Your task to perform on an android device: View the shopping cart on costco.com. Add lenovo thinkpad to the cart on costco.com, then select checkout. Image 0: 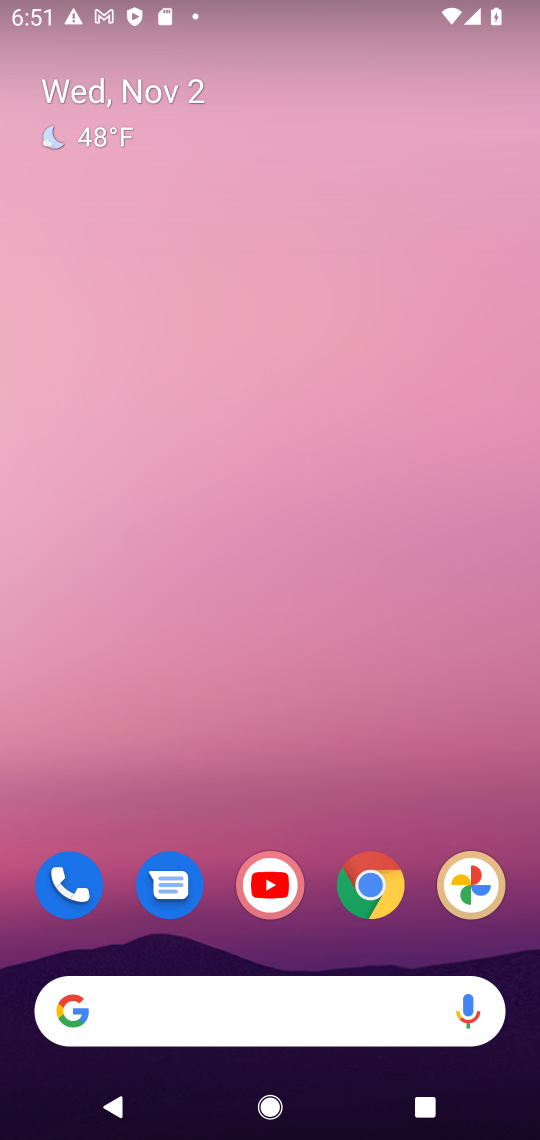
Step 0: click (366, 885)
Your task to perform on an android device: View the shopping cart on costco.com. Add lenovo thinkpad to the cart on costco.com, then select checkout. Image 1: 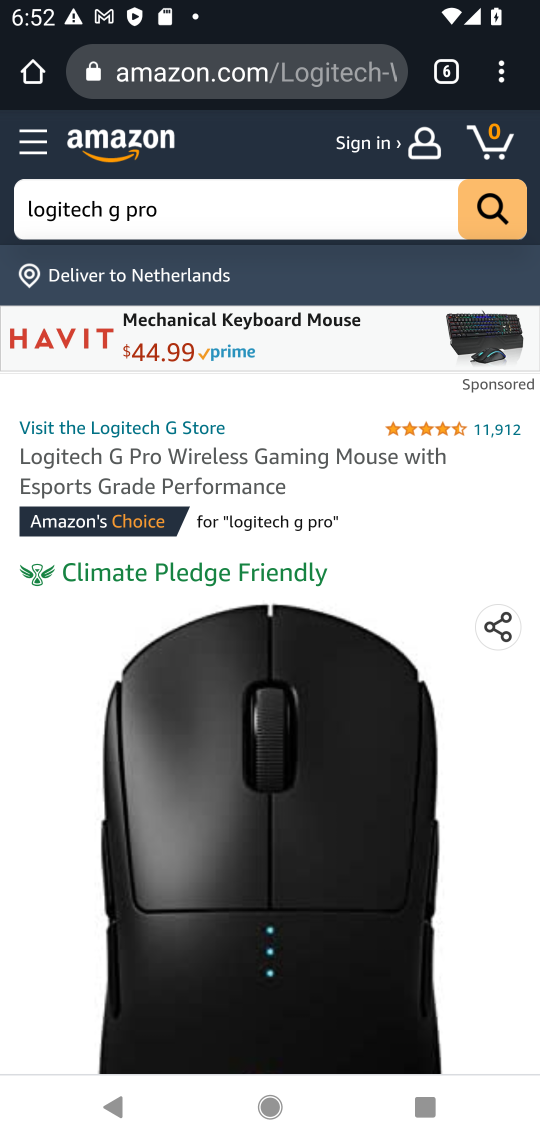
Step 1: click (504, 85)
Your task to perform on an android device: View the shopping cart on costco.com. Add lenovo thinkpad to the cart on costco.com, then select checkout. Image 2: 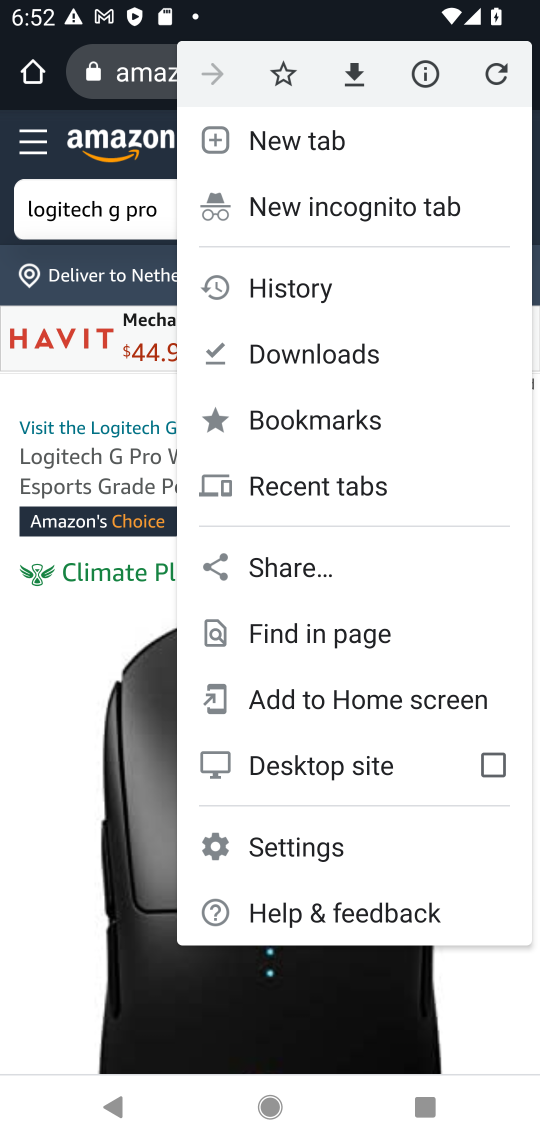
Step 2: click (346, 151)
Your task to perform on an android device: View the shopping cart on costco.com. Add lenovo thinkpad to the cart on costco.com, then select checkout. Image 3: 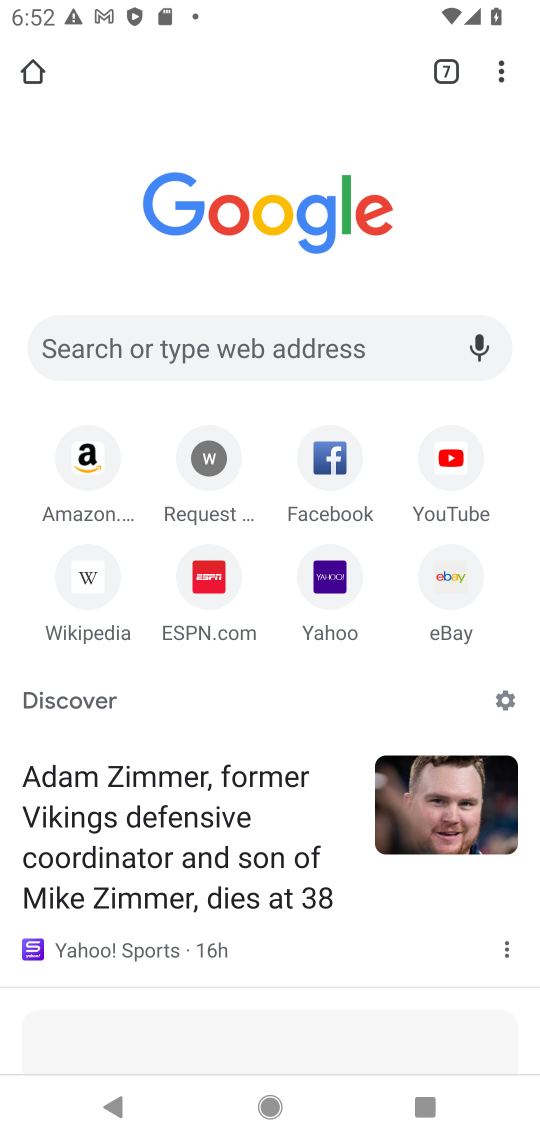
Step 3: click (205, 349)
Your task to perform on an android device: View the shopping cart on costco.com. Add lenovo thinkpad to the cart on costco.com, then select checkout. Image 4: 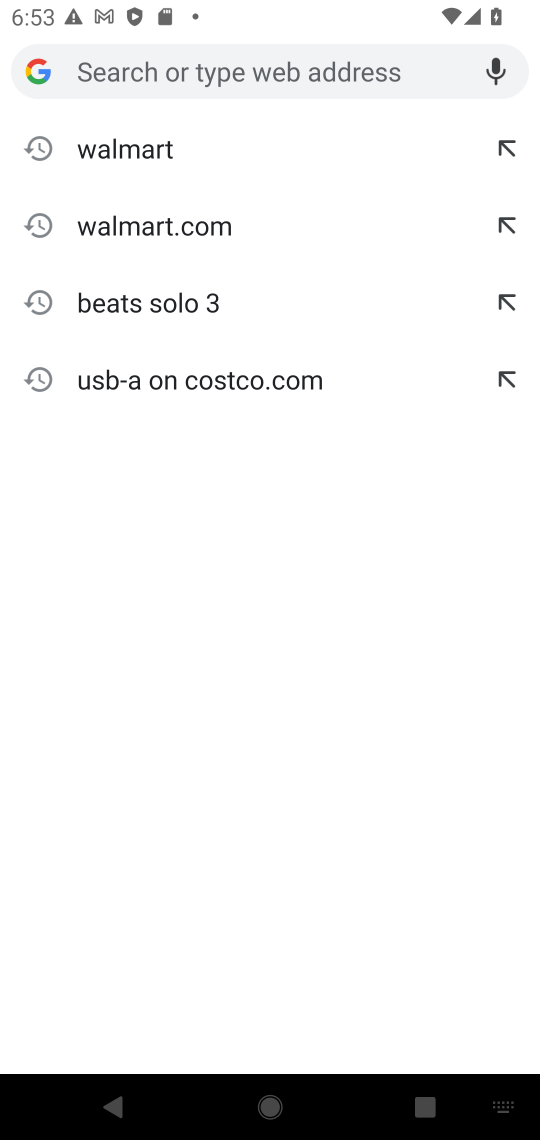
Step 4: type "costco.com"
Your task to perform on an android device: View the shopping cart on costco.com. Add lenovo thinkpad to the cart on costco.com, then select checkout. Image 5: 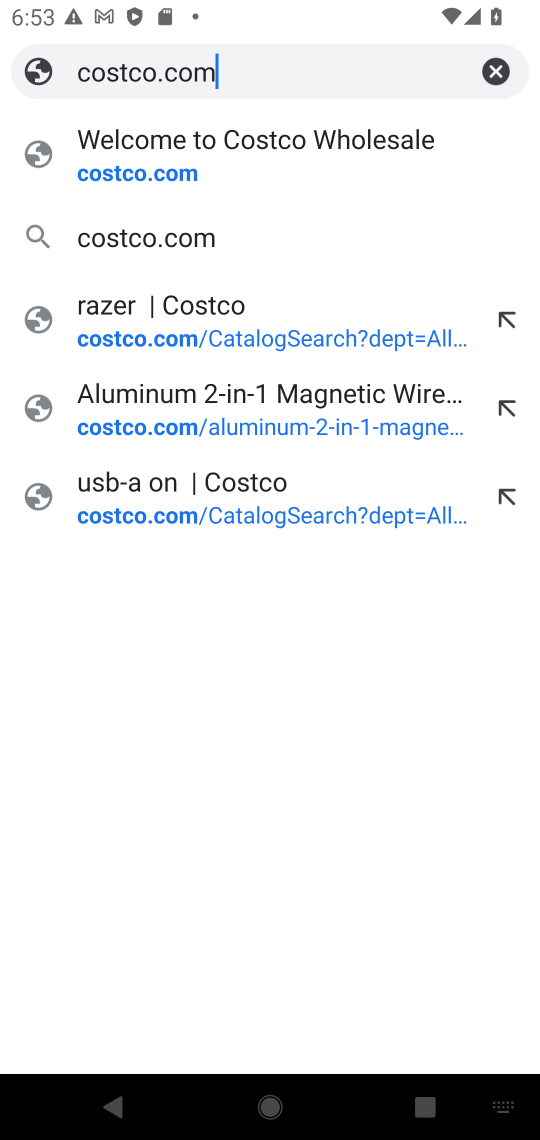
Step 5: click (179, 237)
Your task to perform on an android device: View the shopping cart on costco.com. Add lenovo thinkpad to the cart on costco.com, then select checkout. Image 6: 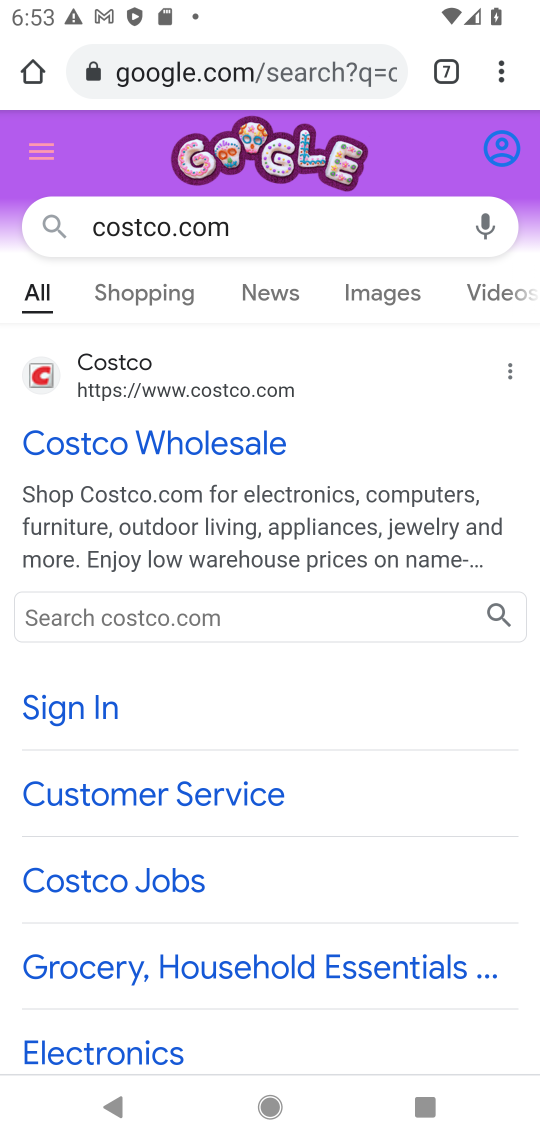
Step 6: click (186, 445)
Your task to perform on an android device: View the shopping cart on costco.com. Add lenovo thinkpad to the cart on costco.com, then select checkout. Image 7: 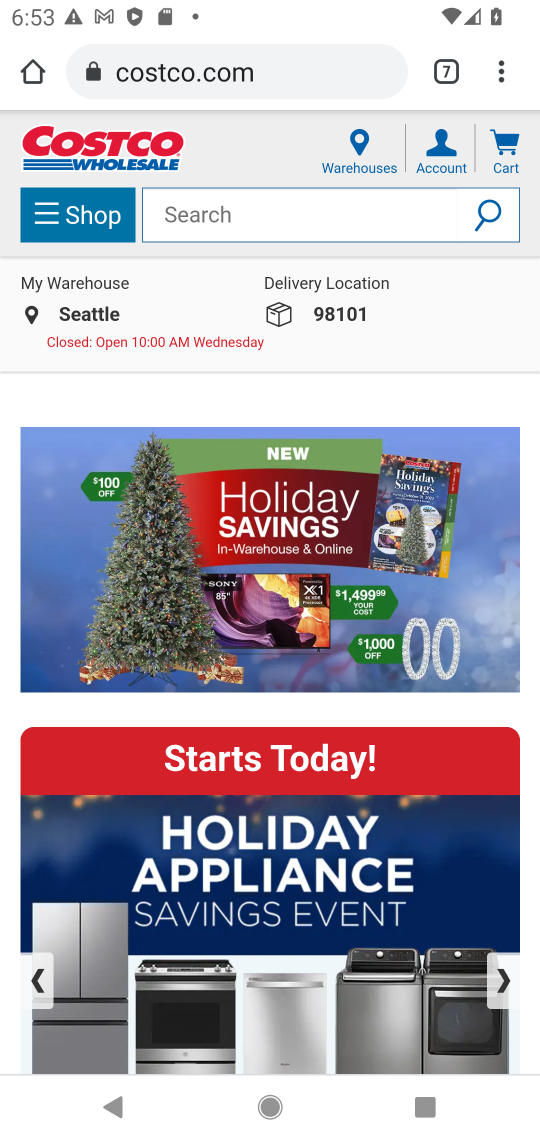
Step 7: click (508, 149)
Your task to perform on an android device: View the shopping cart on costco.com. Add lenovo thinkpad to the cart on costco.com, then select checkout. Image 8: 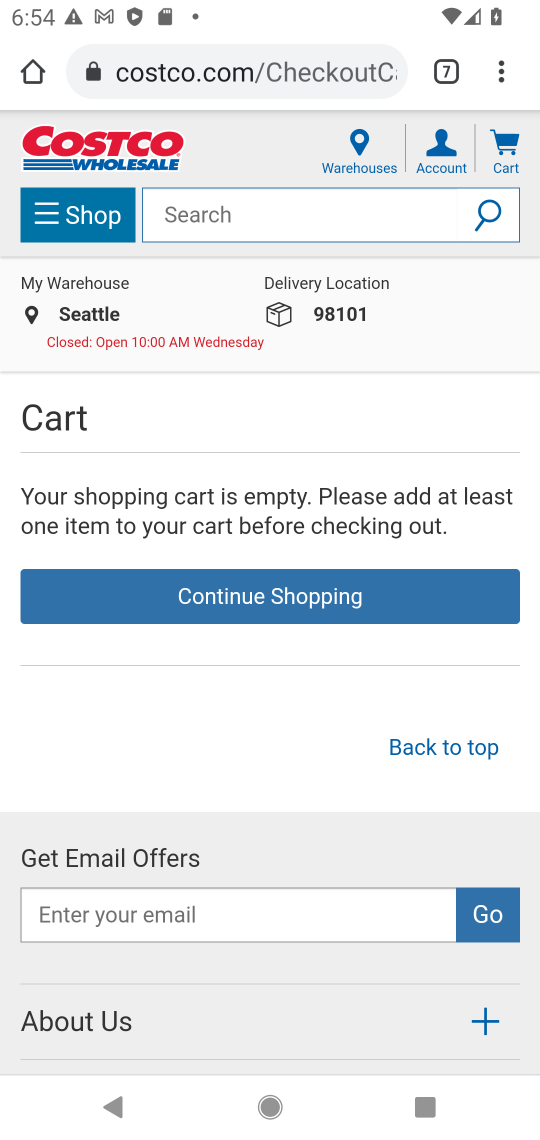
Step 8: click (307, 213)
Your task to perform on an android device: View the shopping cart on costco.com. Add lenovo thinkpad to the cart on costco.com, then select checkout. Image 9: 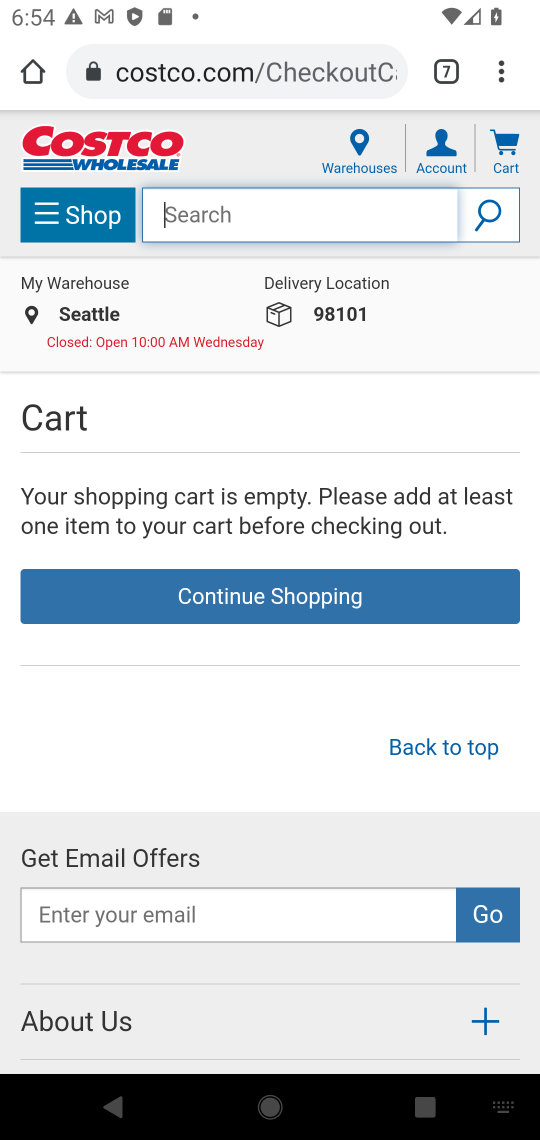
Step 9: type "lenovo thinkpad"
Your task to perform on an android device: View the shopping cart on costco.com. Add lenovo thinkpad to the cart on costco.com, then select checkout. Image 10: 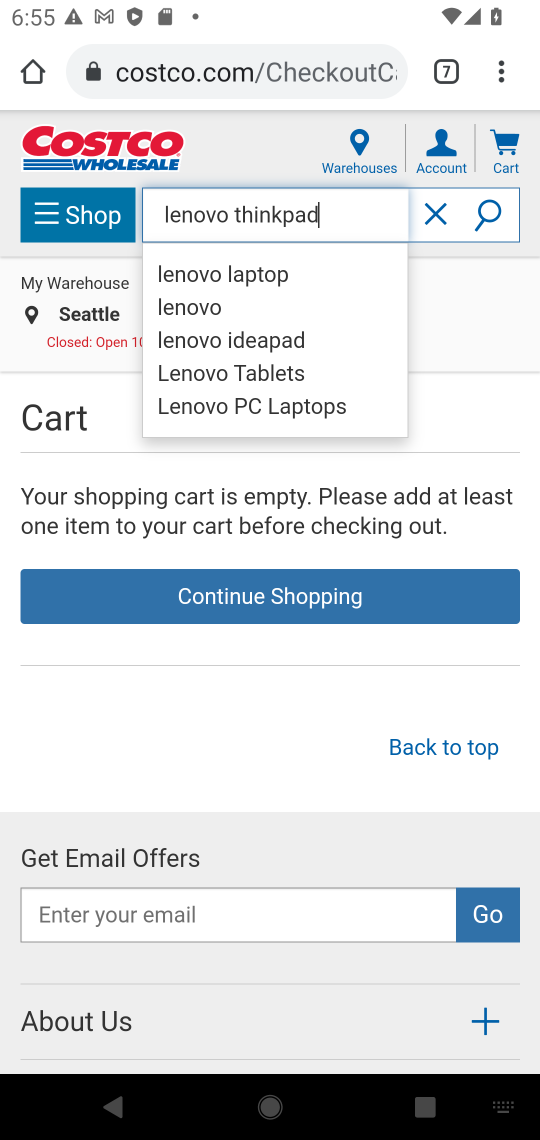
Step 10: click (241, 281)
Your task to perform on an android device: View the shopping cart on costco.com. Add lenovo thinkpad to the cart on costco.com, then select checkout. Image 11: 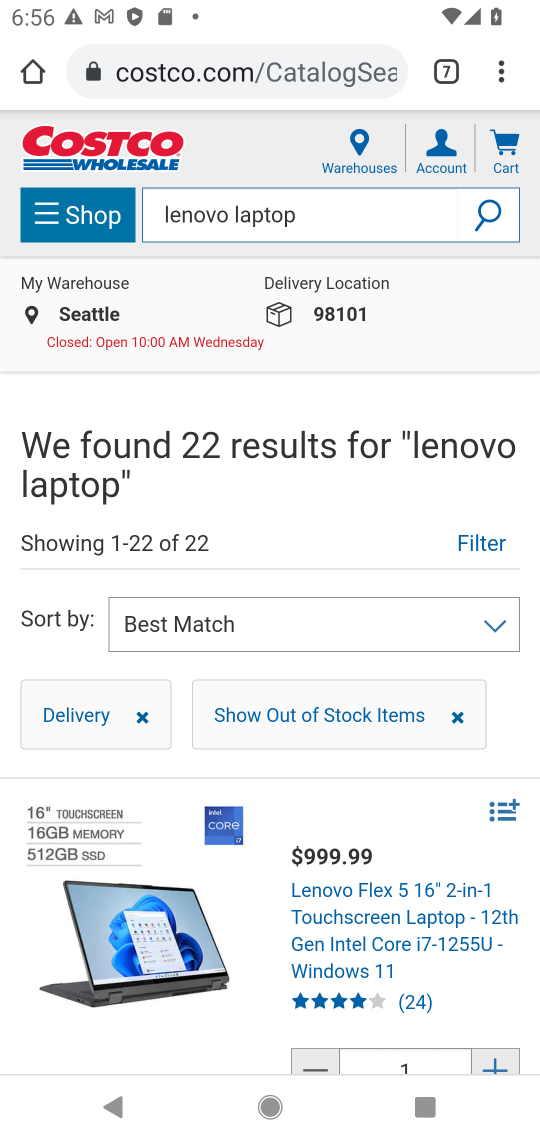
Step 11: click (367, 932)
Your task to perform on an android device: View the shopping cart on costco.com. Add lenovo thinkpad to the cart on costco.com, then select checkout. Image 12: 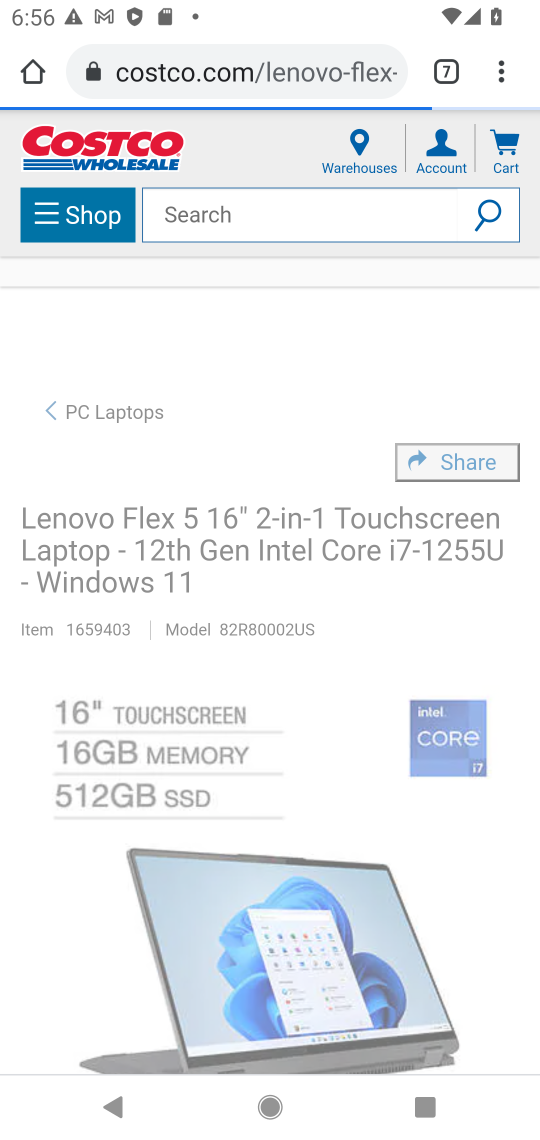
Step 12: drag from (300, 922) to (260, 437)
Your task to perform on an android device: View the shopping cart on costco.com. Add lenovo thinkpad to the cart on costco.com, then select checkout. Image 13: 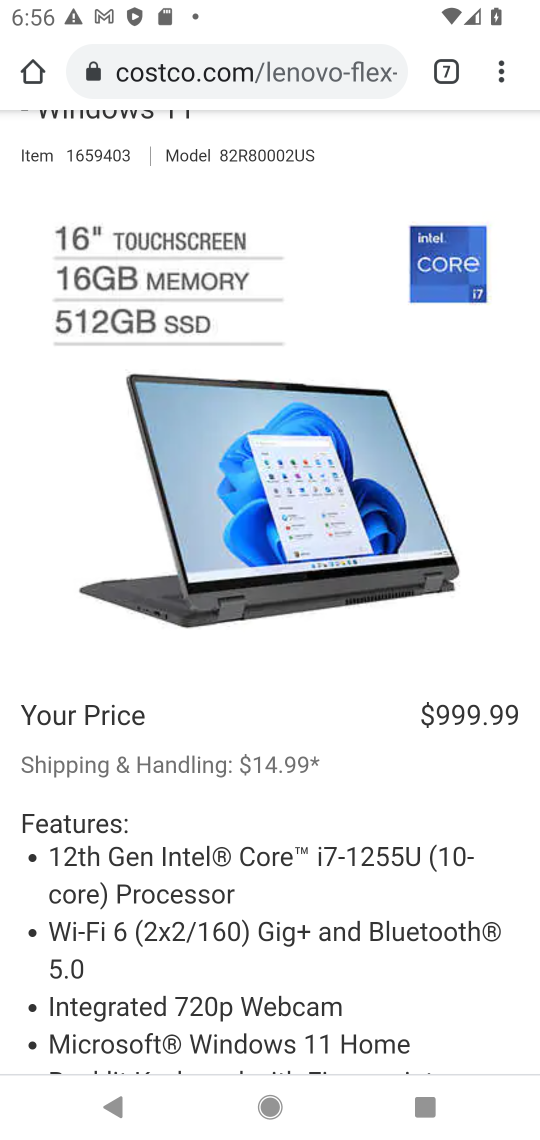
Step 13: drag from (275, 993) to (301, 412)
Your task to perform on an android device: View the shopping cart on costco.com. Add lenovo thinkpad to the cart on costco.com, then select checkout. Image 14: 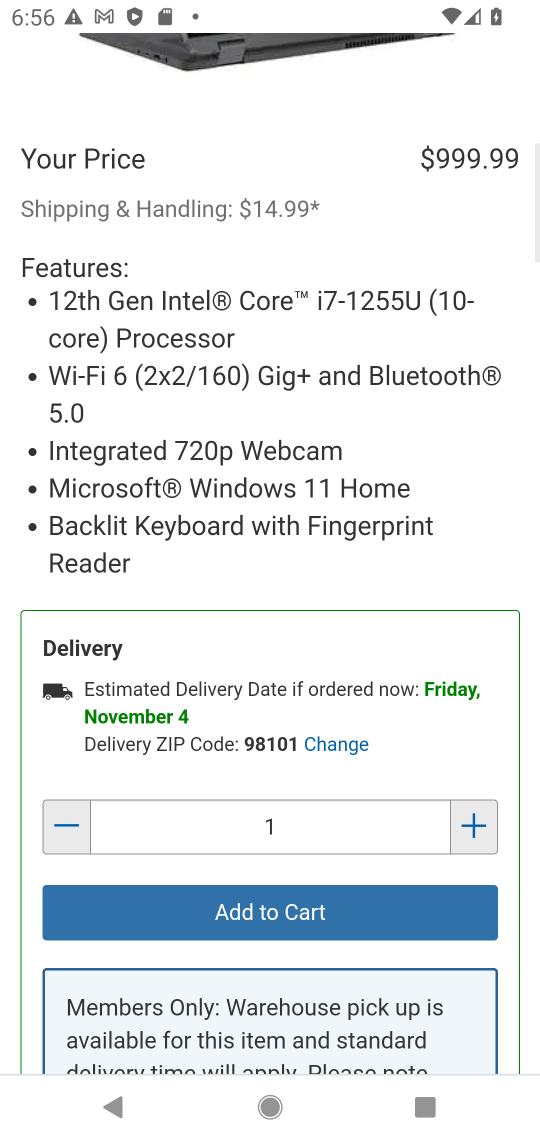
Step 14: click (259, 907)
Your task to perform on an android device: View the shopping cart on costco.com. Add lenovo thinkpad to the cart on costco.com, then select checkout. Image 15: 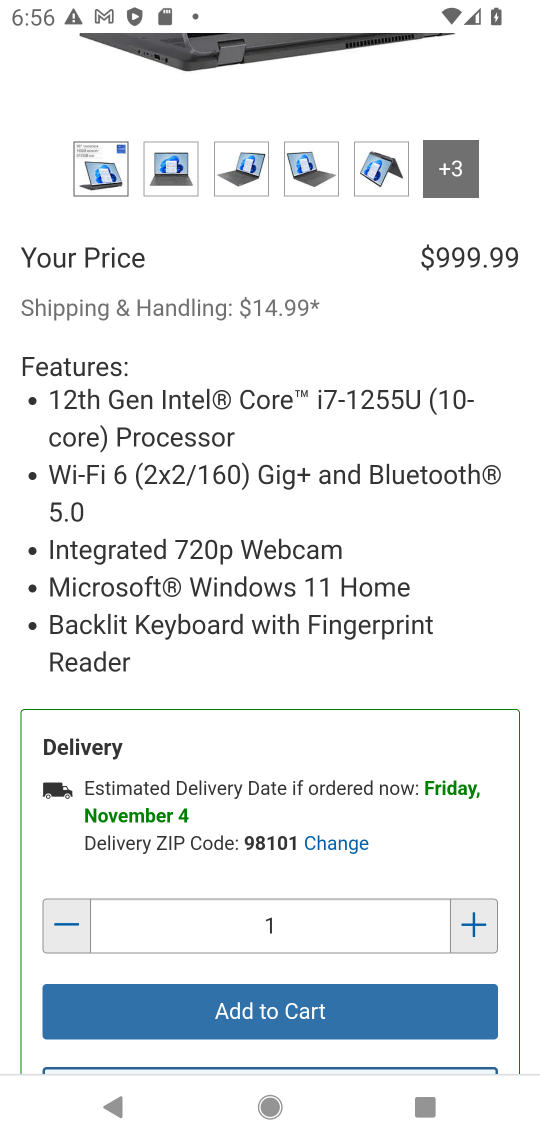
Step 15: drag from (416, 207) to (461, 785)
Your task to perform on an android device: View the shopping cart on costco.com. Add lenovo thinkpad to the cart on costco.com, then select checkout. Image 16: 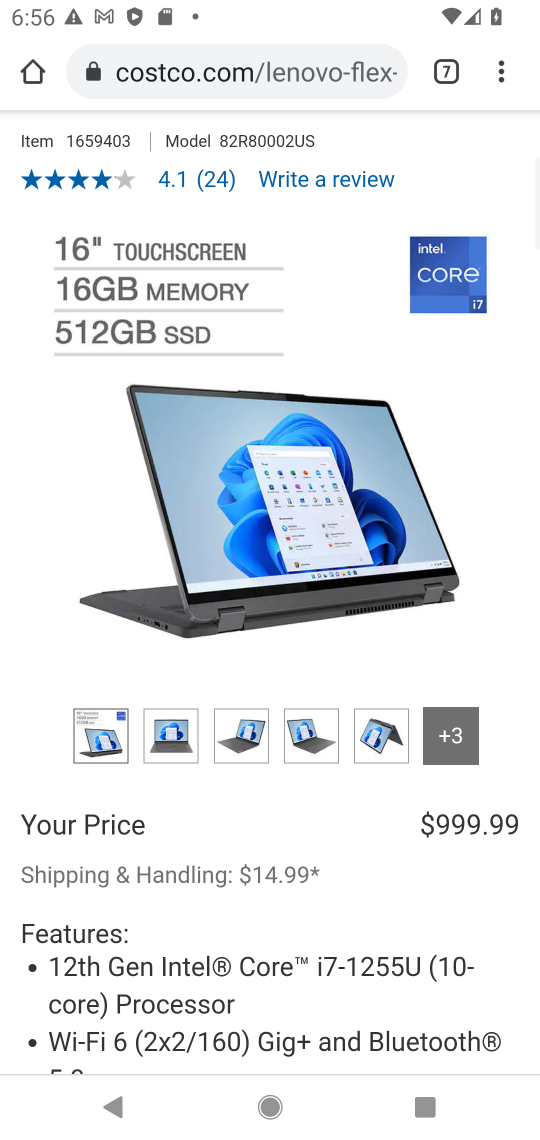
Step 16: drag from (369, 156) to (328, 775)
Your task to perform on an android device: View the shopping cart on costco.com. Add lenovo thinkpad to the cart on costco.com, then select checkout. Image 17: 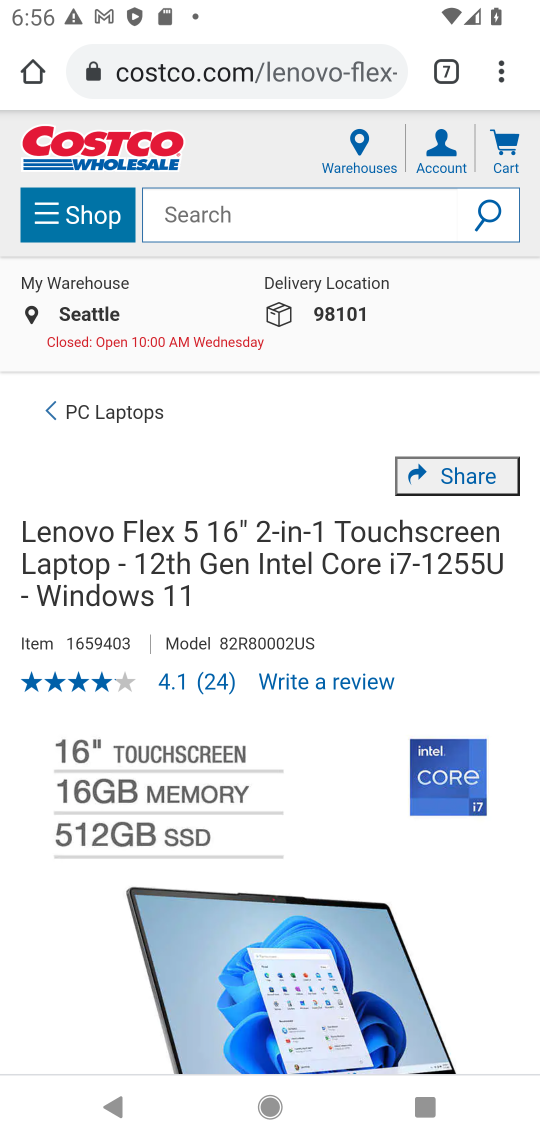
Step 17: drag from (351, 917) to (394, 368)
Your task to perform on an android device: View the shopping cart on costco.com. Add lenovo thinkpad to the cart on costco.com, then select checkout. Image 18: 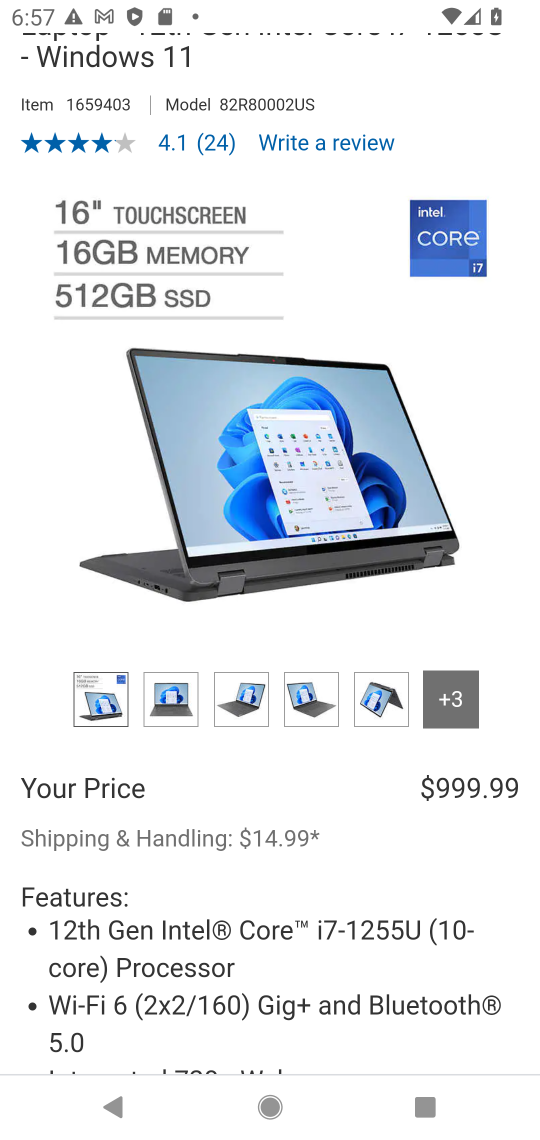
Step 18: drag from (297, 972) to (308, 745)
Your task to perform on an android device: View the shopping cart on costco.com. Add lenovo thinkpad to the cart on costco.com, then select checkout. Image 19: 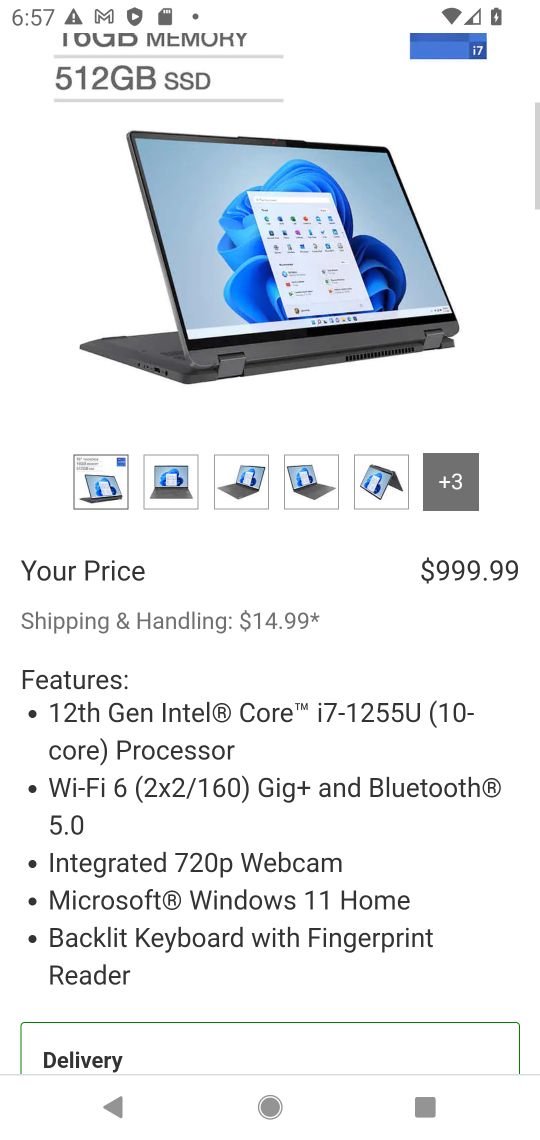
Step 19: drag from (114, 945) to (179, 585)
Your task to perform on an android device: View the shopping cart on costco.com. Add lenovo thinkpad to the cart on costco.com, then select checkout. Image 20: 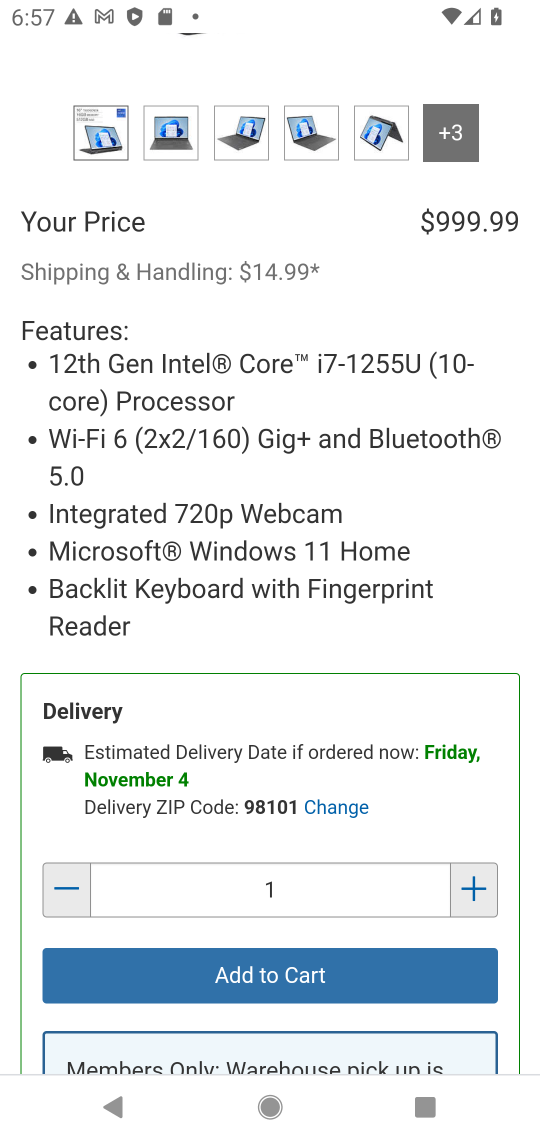
Step 20: drag from (330, 393) to (172, 917)
Your task to perform on an android device: View the shopping cart on costco.com. Add lenovo thinkpad to the cart on costco.com, then select checkout. Image 21: 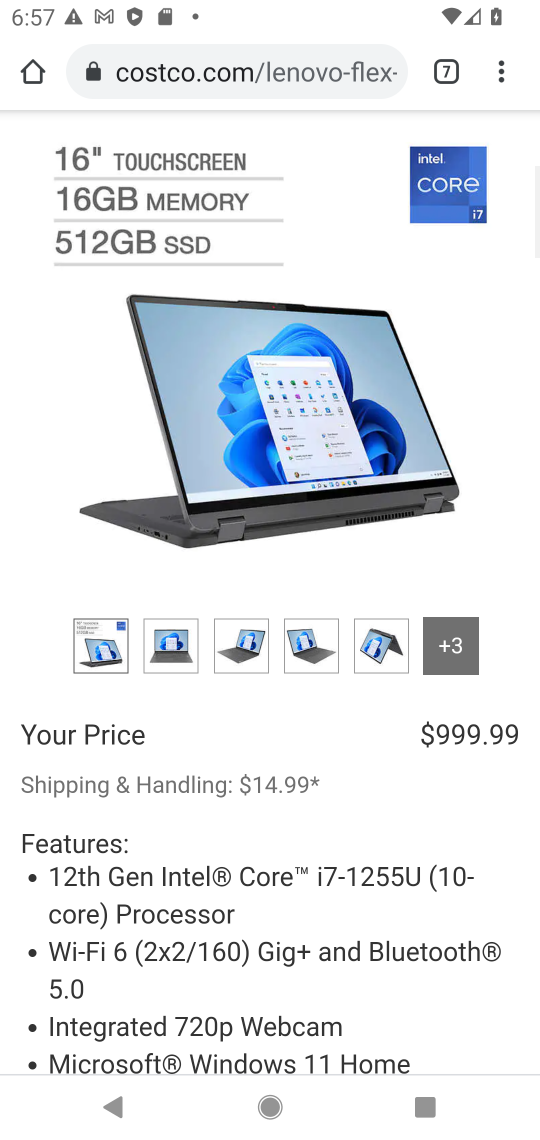
Step 21: drag from (267, 325) to (208, 911)
Your task to perform on an android device: View the shopping cart on costco.com. Add lenovo thinkpad to the cart on costco.com, then select checkout. Image 22: 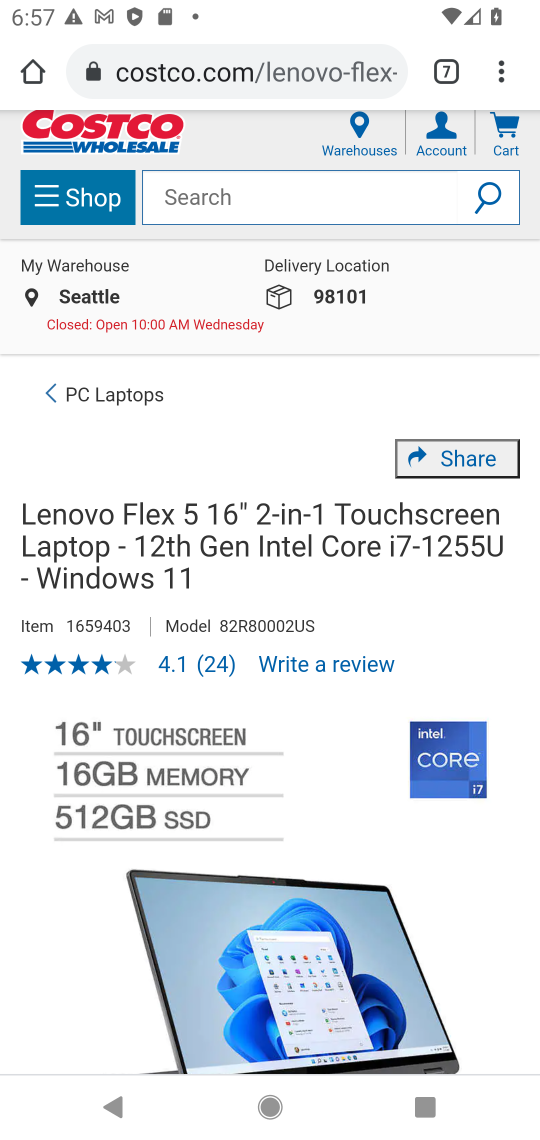
Step 22: click (506, 125)
Your task to perform on an android device: View the shopping cart on costco.com. Add lenovo thinkpad to the cart on costco.com, then select checkout. Image 23: 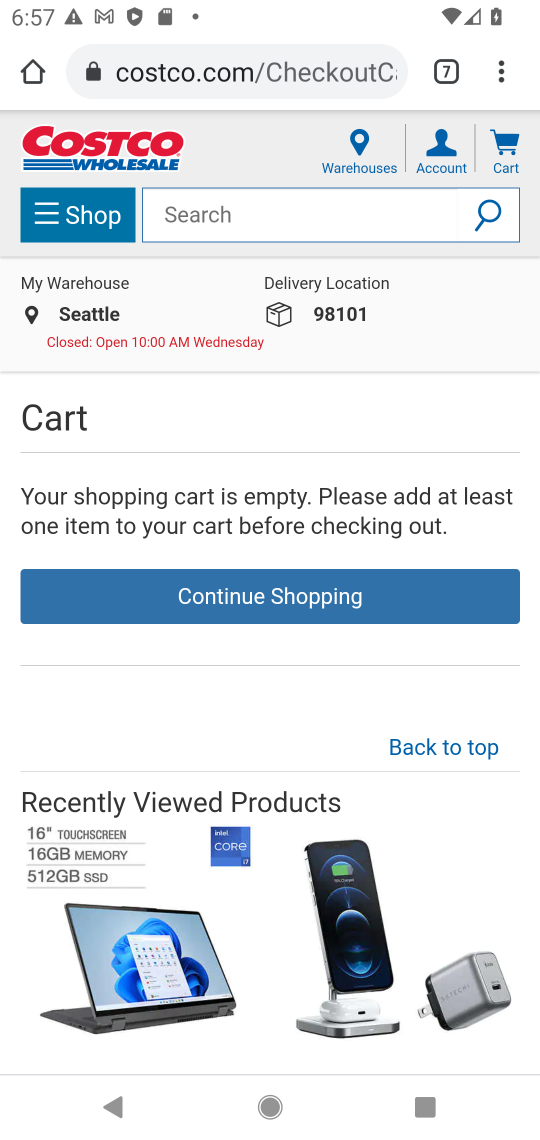
Step 23: click (378, 608)
Your task to perform on an android device: View the shopping cart on costco.com. Add lenovo thinkpad to the cart on costco.com, then select checkout. Image 24: 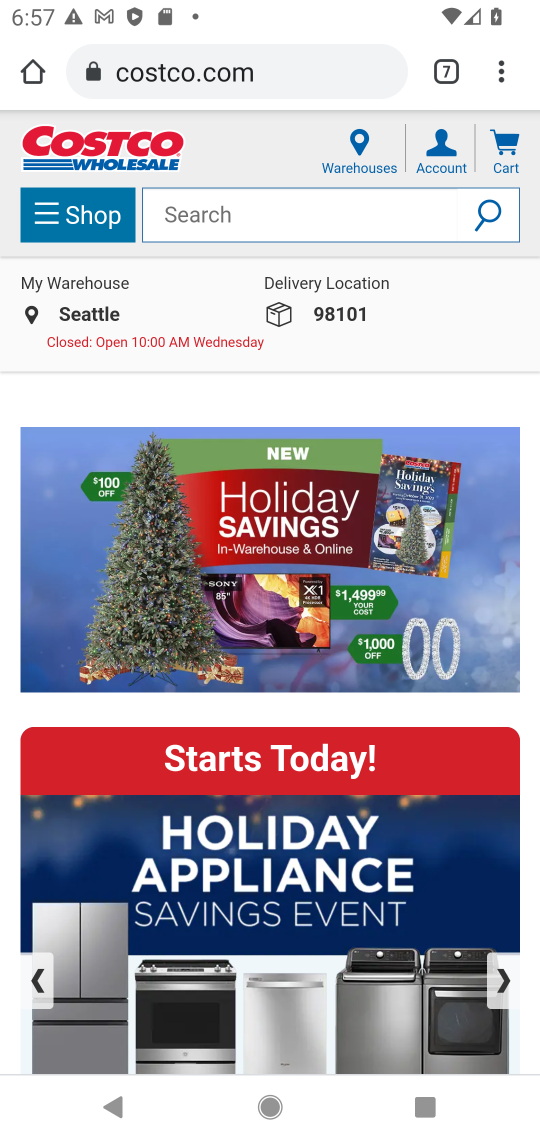
Step 24: task complete